Your task to perform on an android device: toggle priority inbox in the gmail app Image 0: 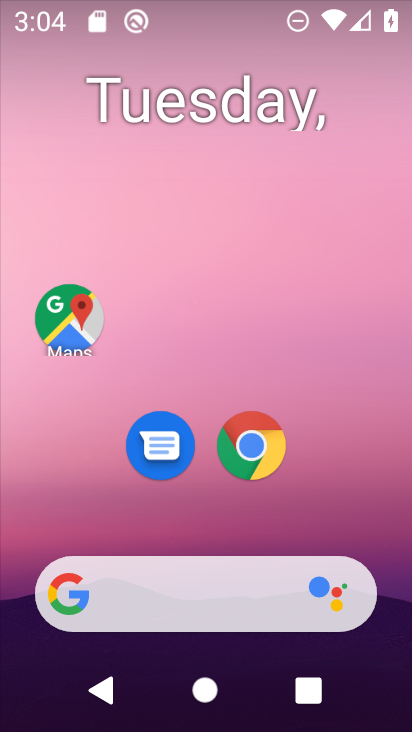
Step 0: drag from (378, 552) to (374, 1)
Your task to perform on an android device: toggle priority inbox in the gmail app Image 1: 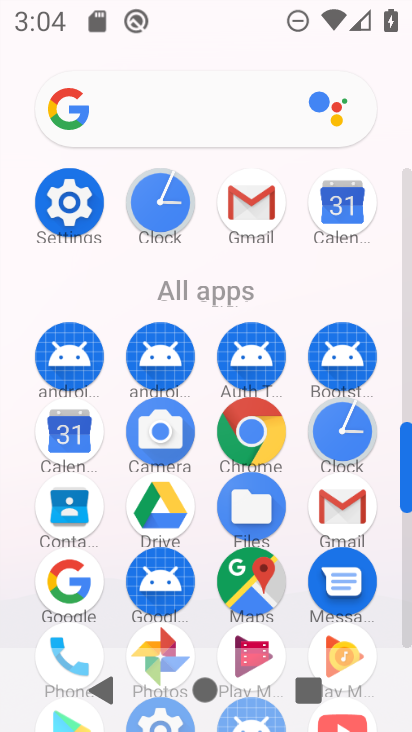
Step 1: click (249, 210)
Your task to perform on an android device: toggle priority inbox in the gmail app Image 2: 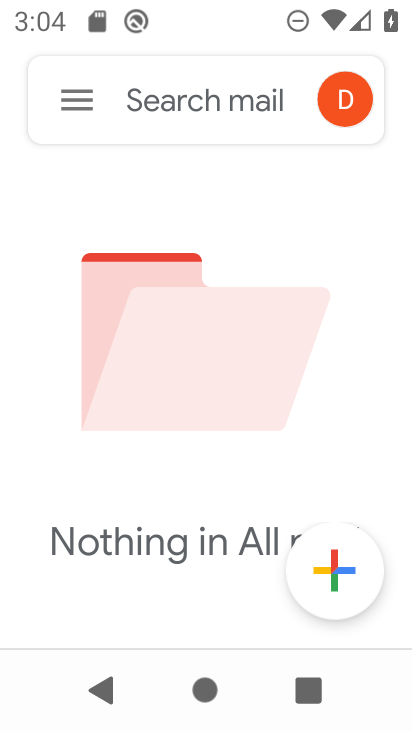
Step 2: click (74, 103)
Your task to perform on an android device: toggle priority inbox in the gmail app Image 3: 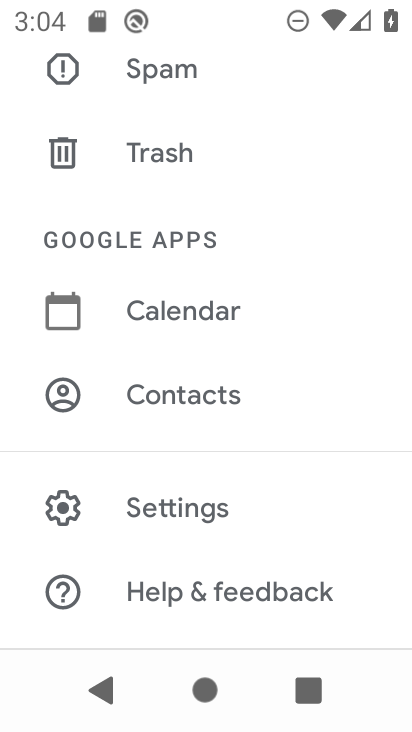
Step 3: click (178, 508)
Your task to perform on an android device: toggle priority inbox in the gmail app Image 4: 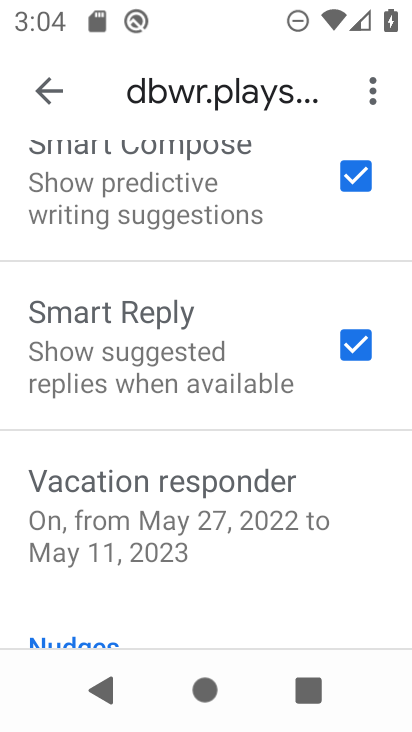
Step 4: drag from (143, 232) to (98, 623)
Your task to perform on an android device: toggle priority inbox in the gmail app Image 5: 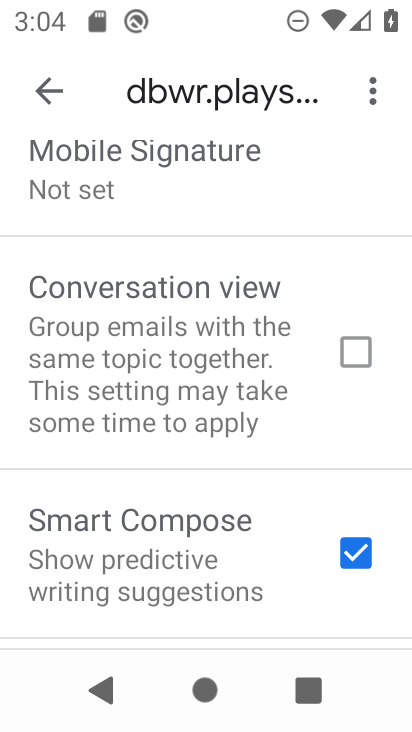
Step 5: drag from (90, 209) to (71, 567)
Your task to perform on an android device: toggle priority inbox in the gmail app Image 6: 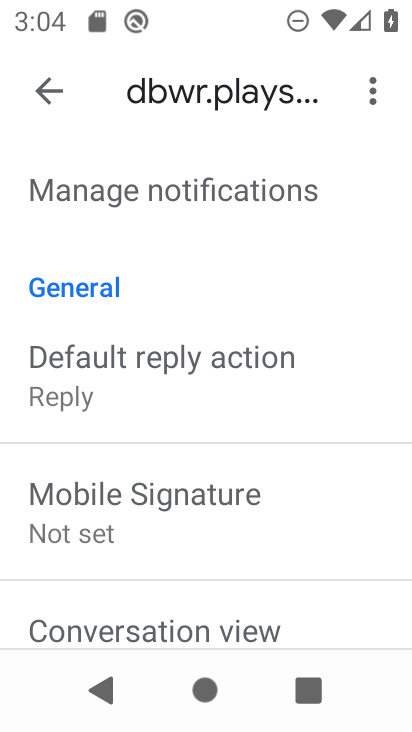
Step 6: drag from (117, 239) to (89, 634)
Your task to perform on an android device: toggle priority inbox in the gmail app Image 7: 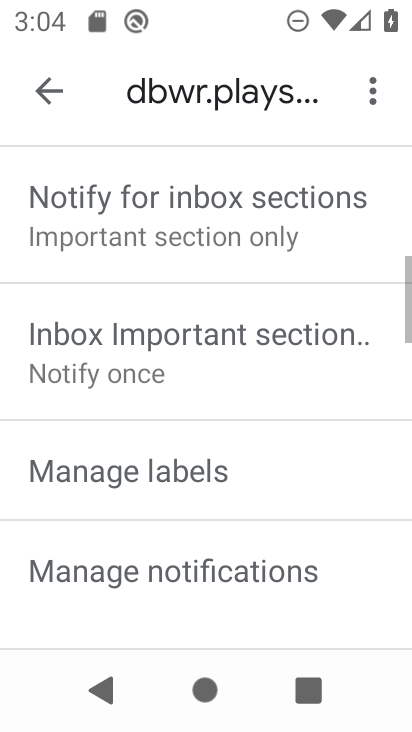
Step 7: drag from (102, 300) to (91, 615)
Your task to perform on an android device: toggle priority inbox in the gmail app Image 8: 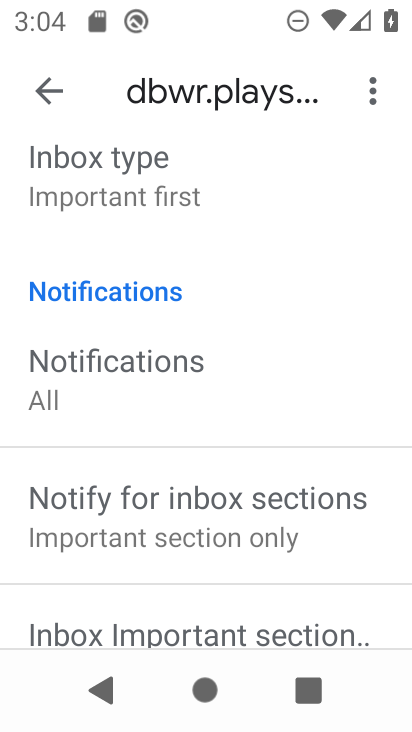
Step 8: drag from (93, 236) to (87, 601)
Your task to perform on an android device: toggle priority inbox in the gmail app Image 9: 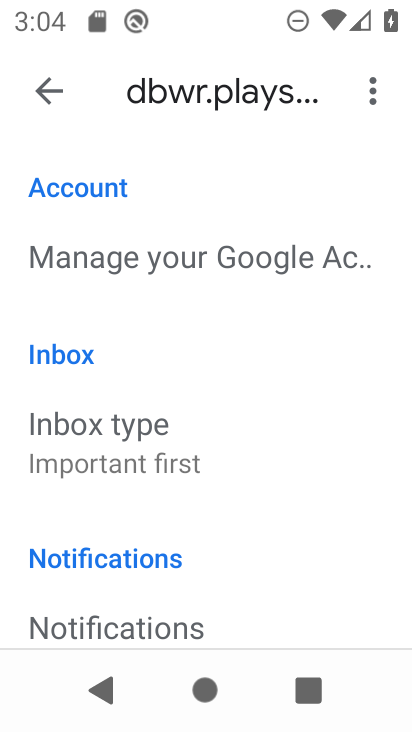
Step 9: drag from (101, 388) to (159, 312)
Your task to perform on an android device: toggle priority inbox in the gmail app Image 10: 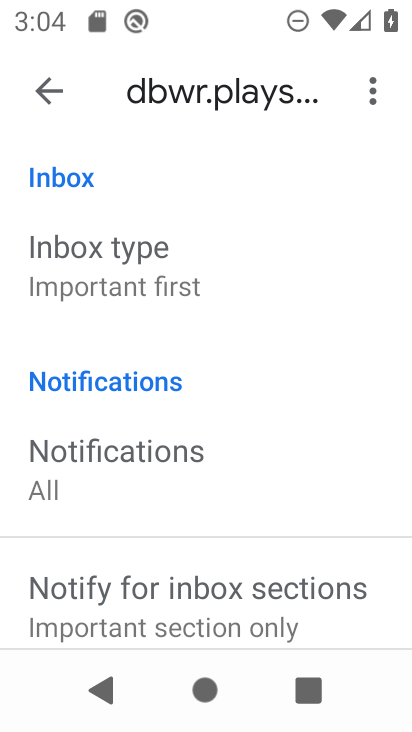
Step 10: click (99, 280)
Your task to perform on an android device: toggle priority inbox in the gmail app Image 11: 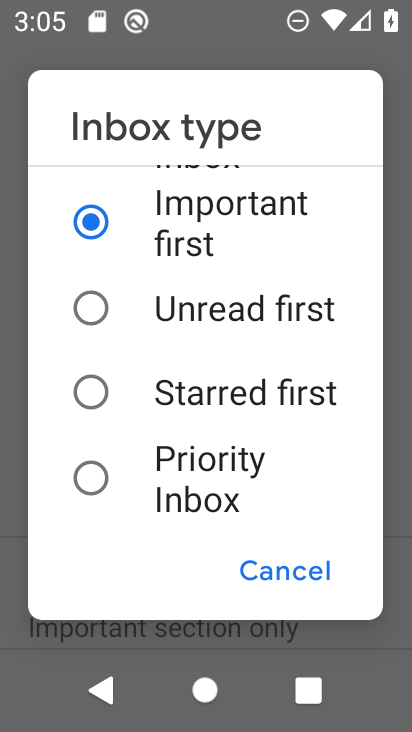
Step 11: click (82, 472)
Your task to perform on an android device: toggle priority inbox in the gmail app Image 12: 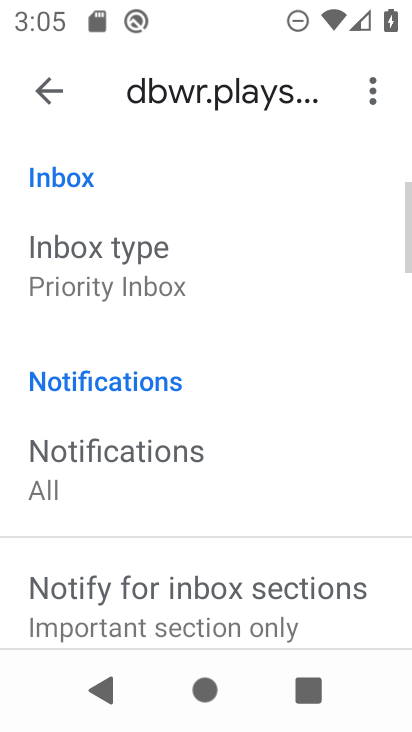
Step 12: task complete